Your task to perform on an android device: Search for "dell xps" on newegg.com, select the first entry, add it to the cart, then select checkout. Image 0: 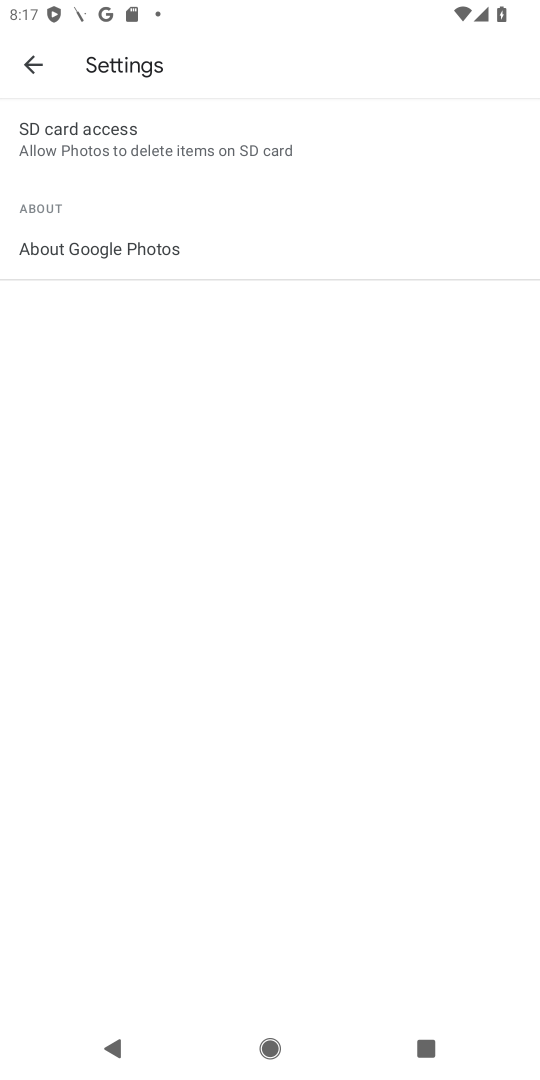
Step 0: press home button
Your task to perform on an android device: Search for "dell xps" on newegg.com, select the first entry, add it to the cart, then select checkout. Image 1: 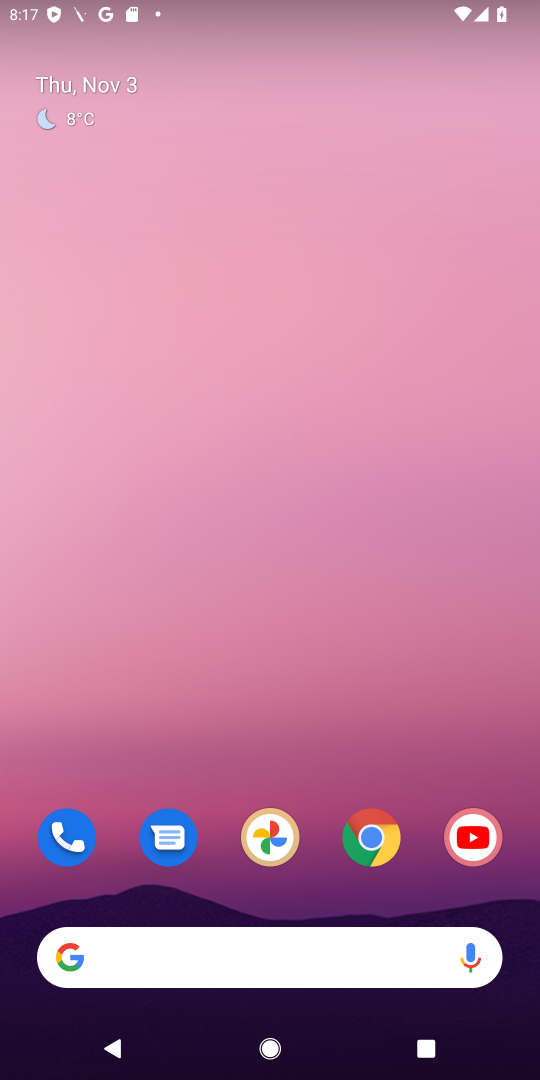
Step 1: click (385, 847)
Your task to perform on an android device: Search for "dell xps" on newegg.com, select the first entry, add it to the cart, then select checkout. Image 2: 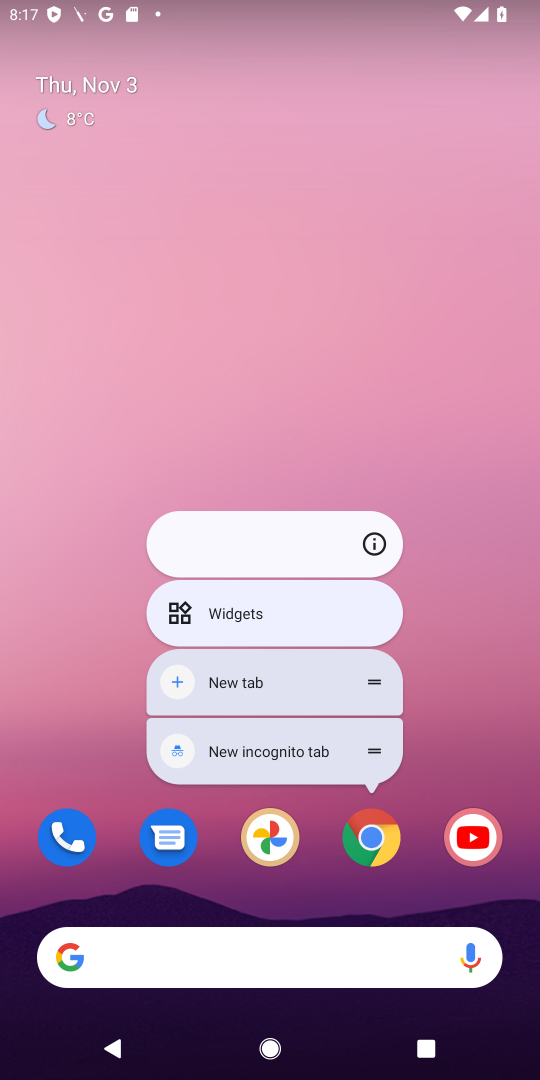
Step 2: click (366, 833)
Your task to perform on an android device: Search for "dell xps" on newegg.com, select the first entry, add it to the cart, then select checkout. Image 3: 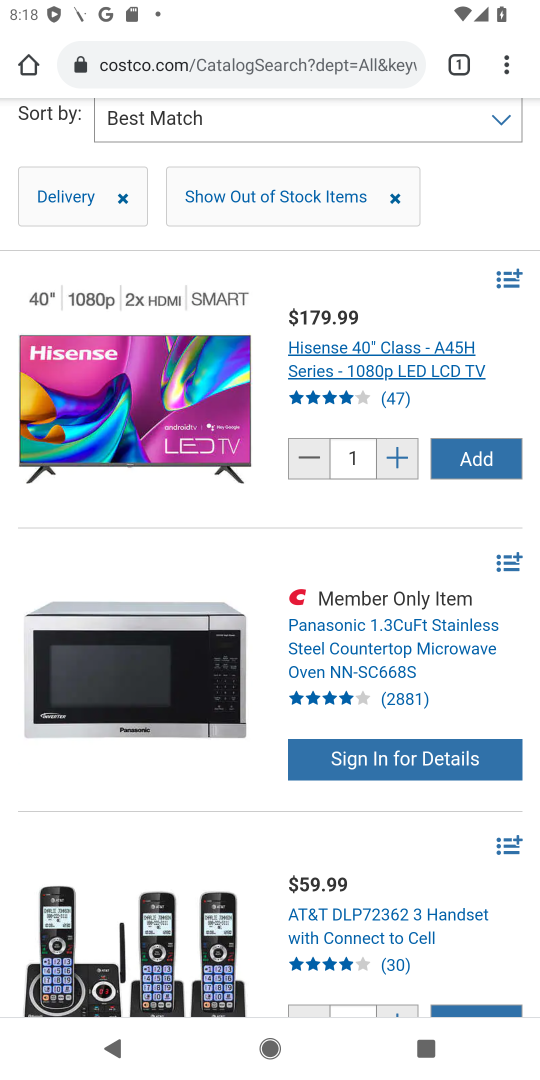
Step 3: click (259, 63)
Your task to perform on an android device: Search for "dell xps" on newegg.com, select the first entry, add it to the cart, then select checkout. Image 4: 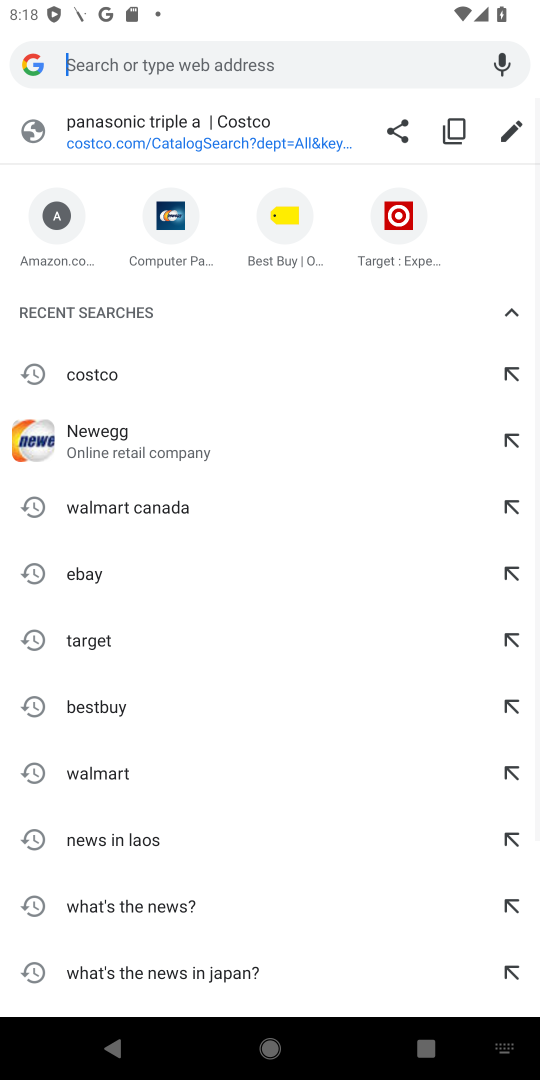
Step 4: click (97, 437)
Your task to perform on an android device: Search for "dell xps" on newegg.com, select the first entry, add it to the cart, then select checkout. Image 5: 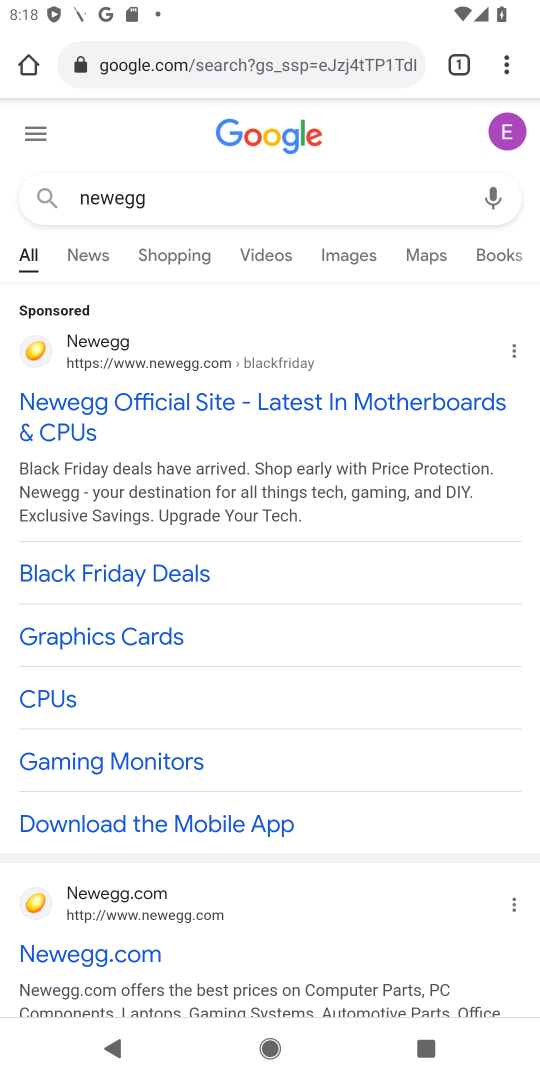
Step 5: click (163, 393)
Your task to perform on an android device: Search for "dell xps" on newegg.com, select the first entry, add it to the cart, then select checkout. Image 6: 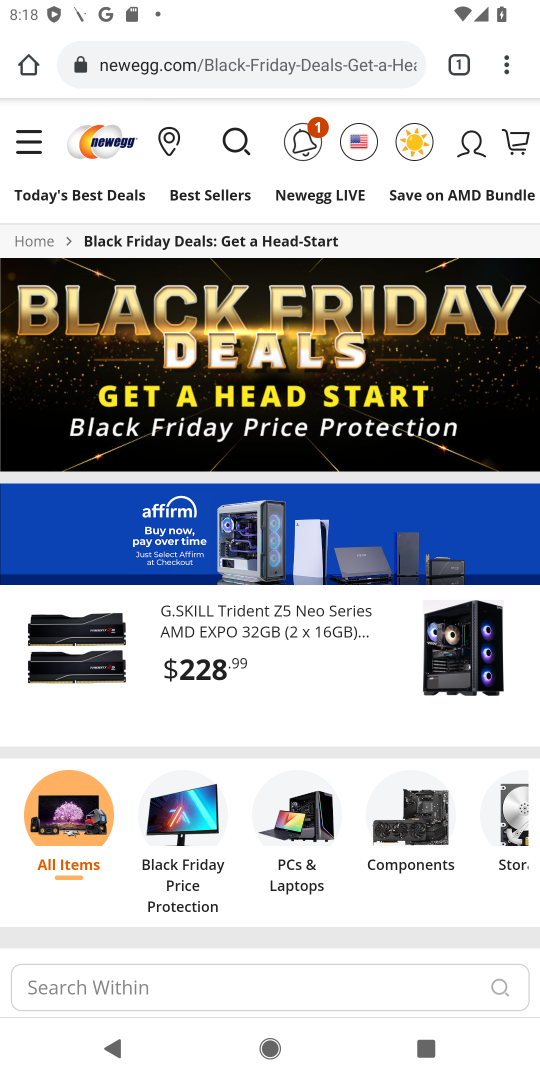
Step 6: click (233, 134)
Your task to perform on an android device: Search for "dell xps" on newegg.com, select the first entry, add it to the cart, then select checkout. Image 7: 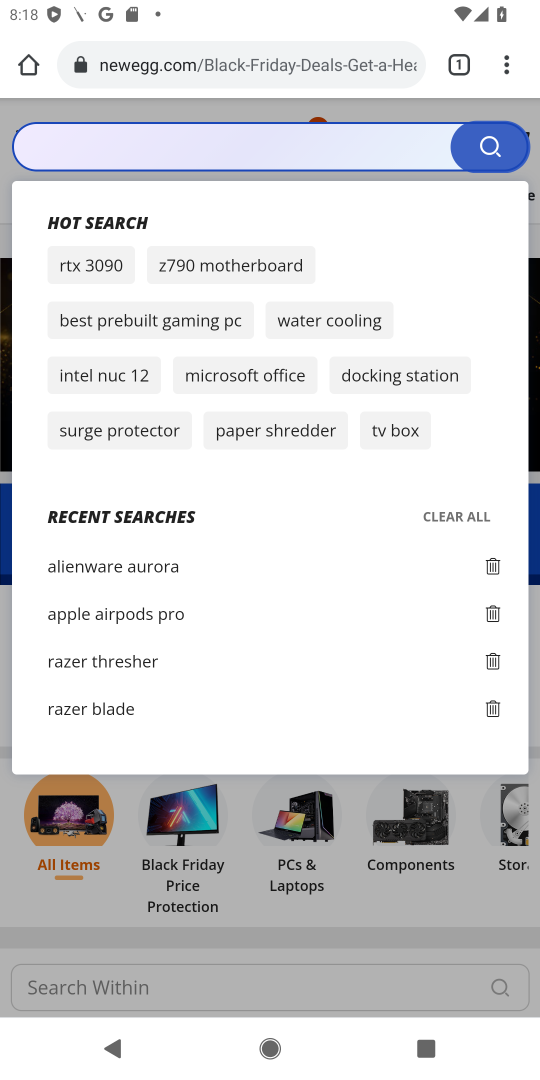
Step 7: click (208, 140)
Your task to perform on an android device: Search for "dell xps" on newegg.com, select the first entry, add it to the cart, then select checkout. Image 8: 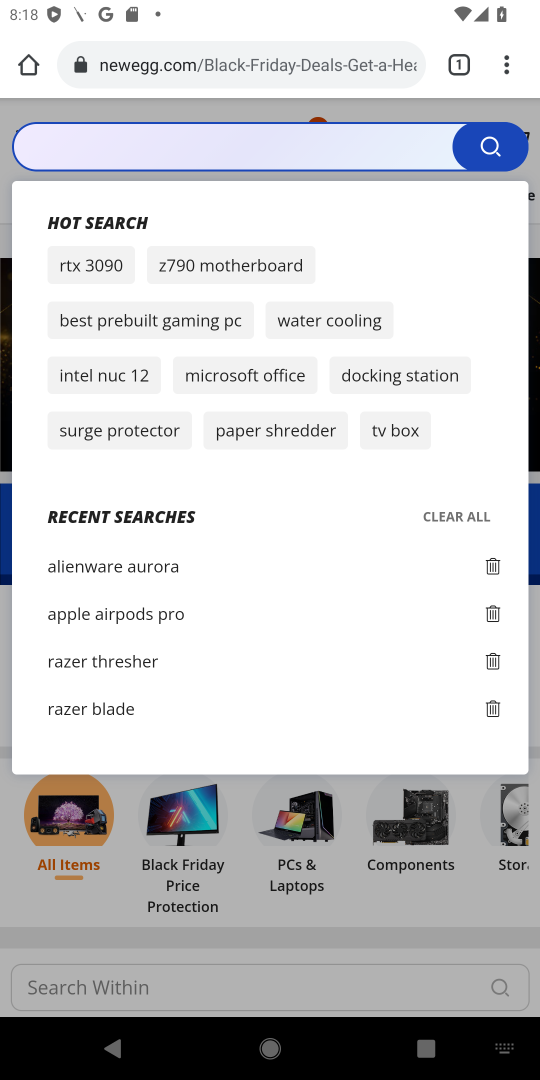
Step 8: press enter
Your task to perform on an android device: Search for "dell xps" on newegg.com, select the first entry, add it to the cart, then select checkout. Image 9: 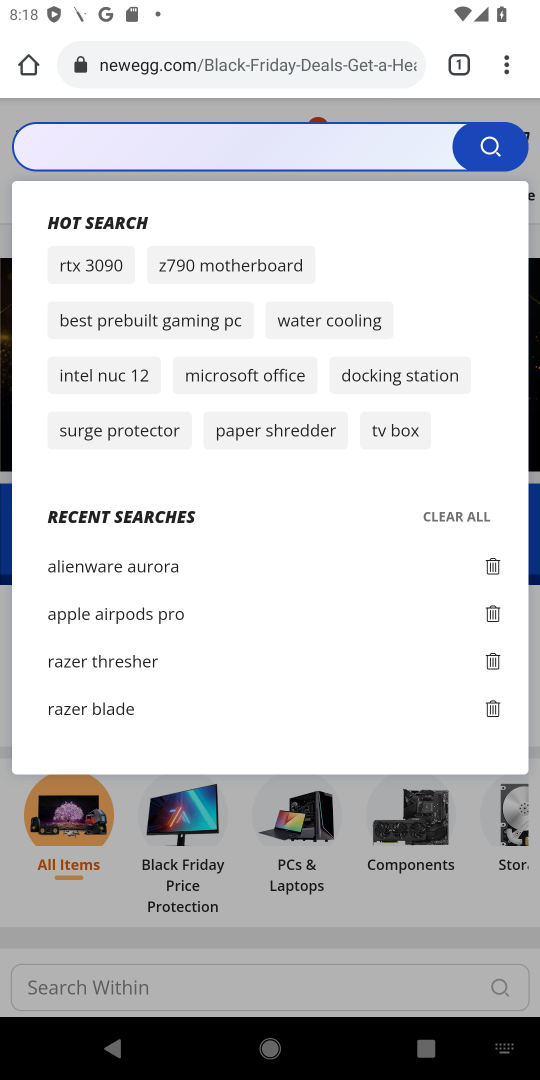
Step 9: type "dell xps"
Your task to perform on an android device: Search for "dell xps" on newegg.com, select the first entry, add it to the cart, then select checkout. Image 10: 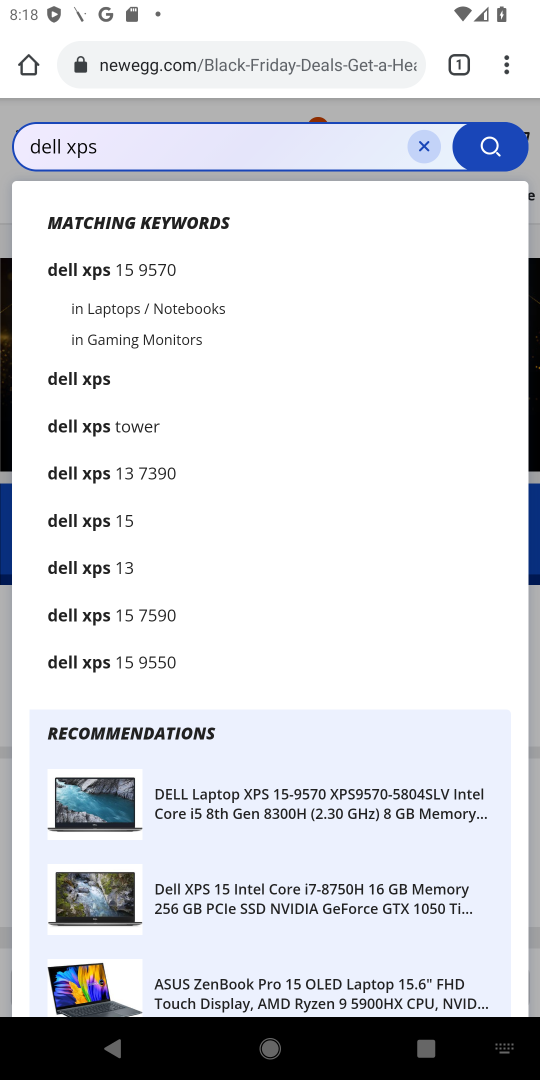
Step 10: press enter
Your task to perform on an android device: Search for "dell xps" on newegg.com, select the first entry, add it to the cart, then select checkout. Image 11: 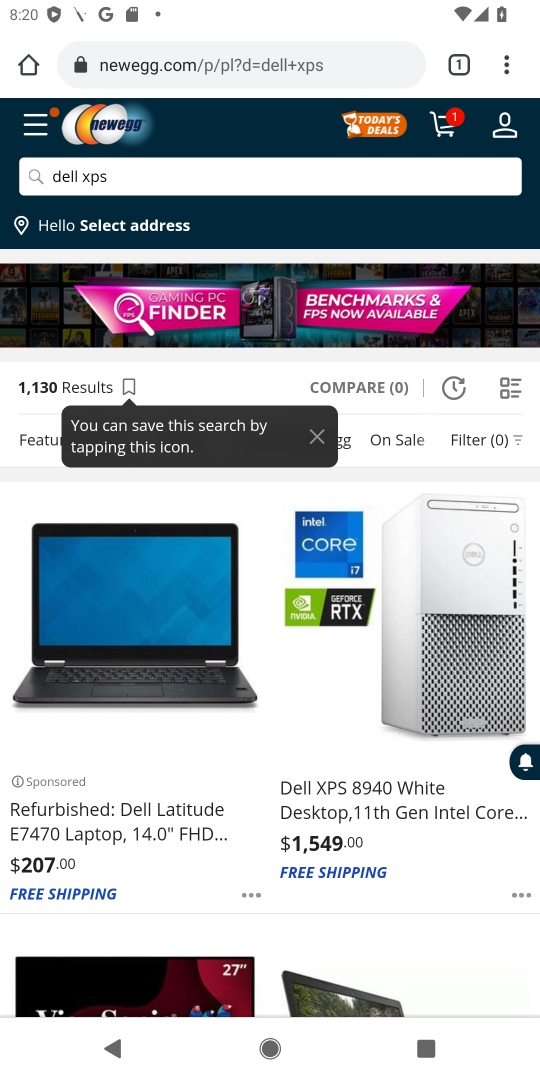
Step 11: task complete